Your task to perform on an android device: Clear all items from cart on ebay. Search for acer predator on ebay, select the first entry, and add it to the cart. Image 0: 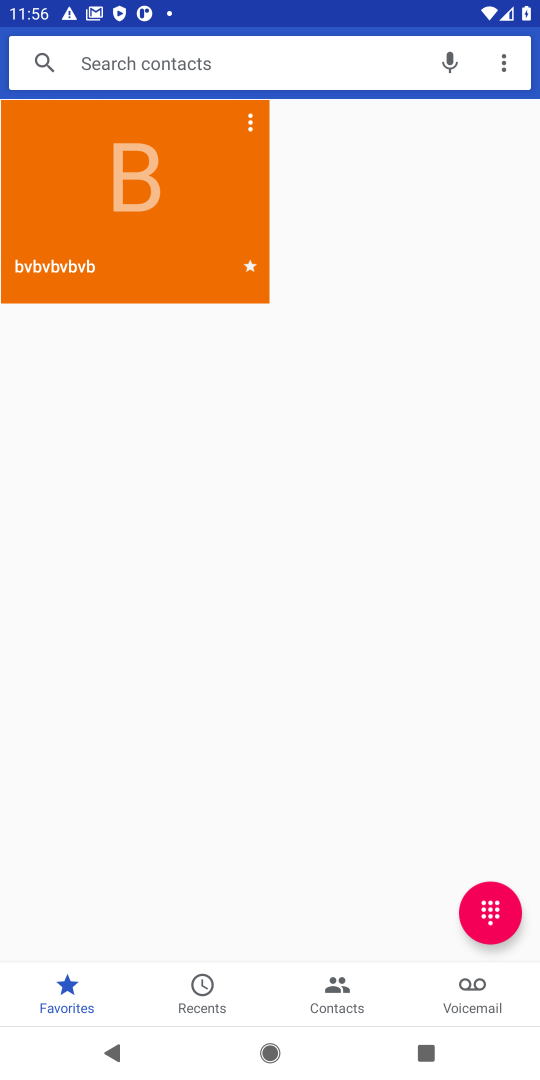
Step 0: press home button
Your task to perform on an android device: Clear all items from cart on ebay. Search for acer predator on ebay, select the first entry, and add it to the cart. Image 1: 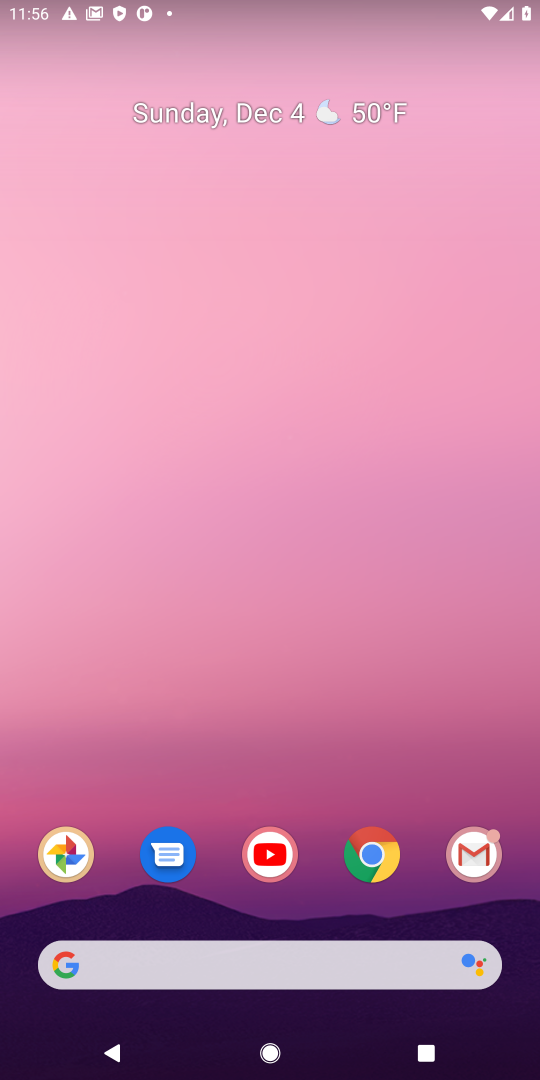
Step 1: click (220, 977)
Your task to perform on an android device: Clear all items from cart on ebay. Search for acer predator on ebay, select the first entry, and add it to the cart. Image 2: 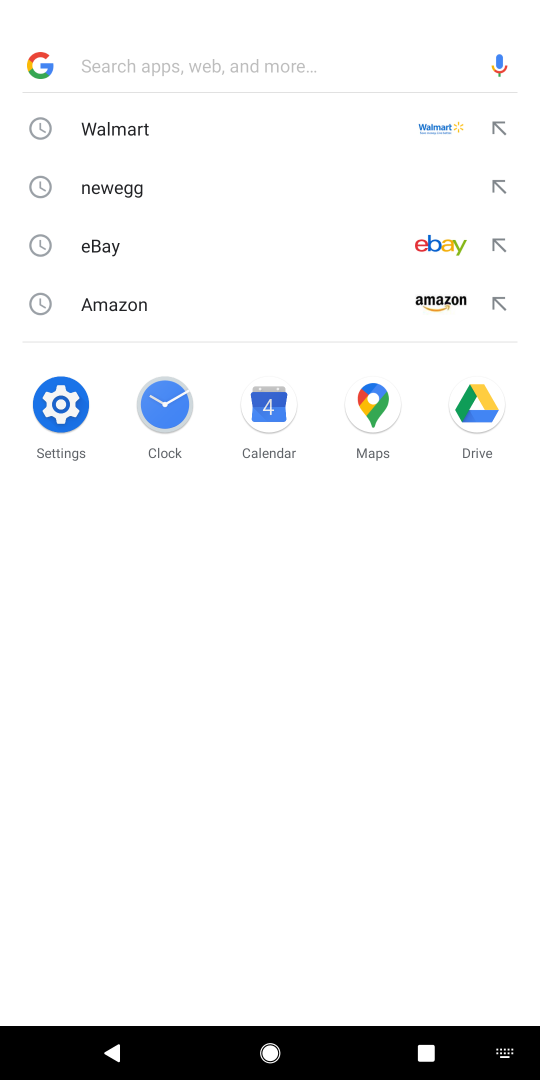
Step 2: type "ebay"
Your task to perform on an android device: Clear all items from cart on ebay. Search for acer predator on ebay, select the first entry, and add it to the cart. Image 3: 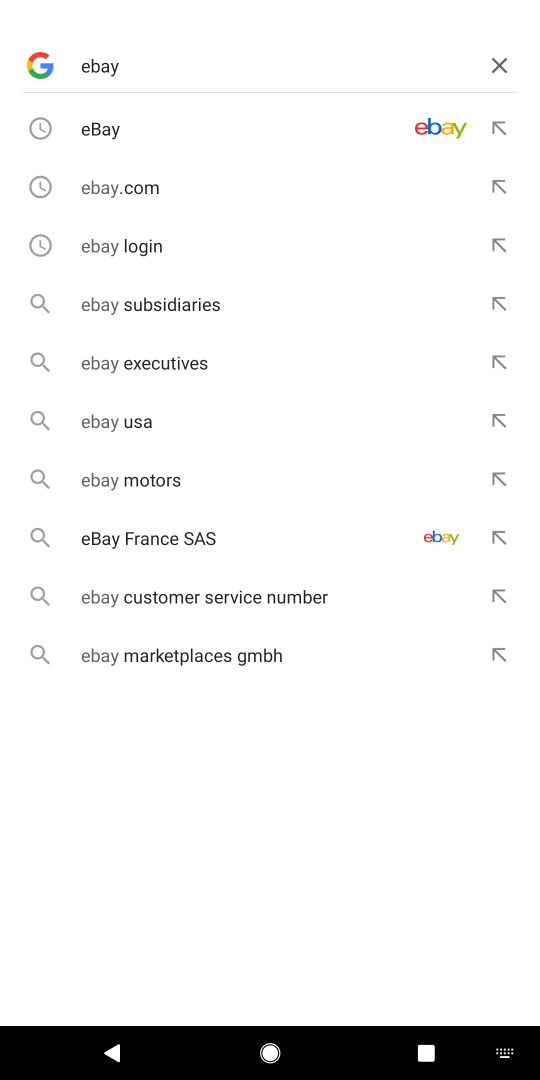
Step 3: click (204, 127)
Your task to perform on an android device: Clear all items from cart on ebay. Search for acer predator on ebay, select the first entry, and add it to the cart. Image 4: 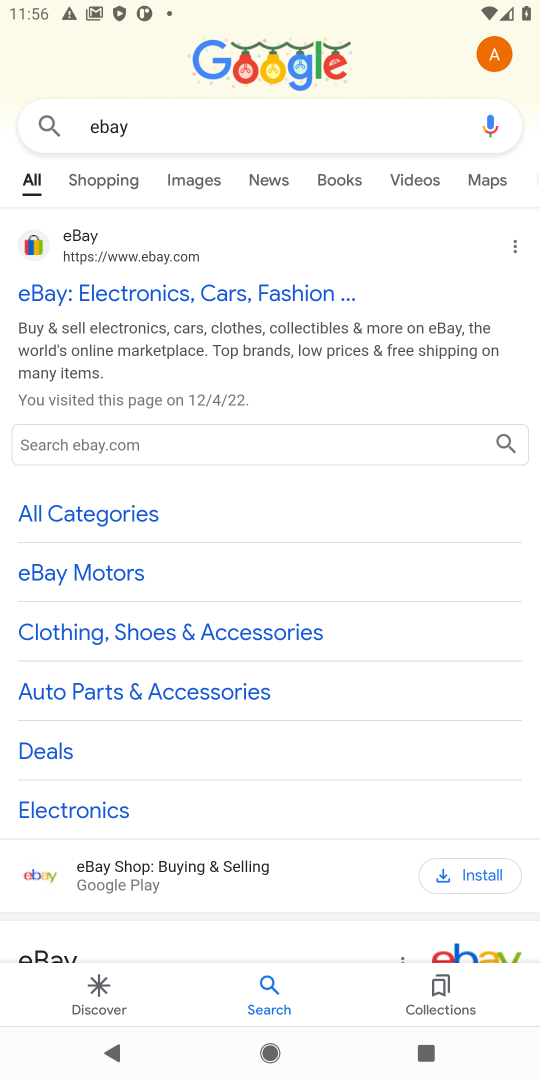
Step 4: click (78, 290)
Your task to perform on an android device: Clear all items from cart on ebay. Search for acer predator on ebay, select the first entry, and add it to the cart. Image 5: 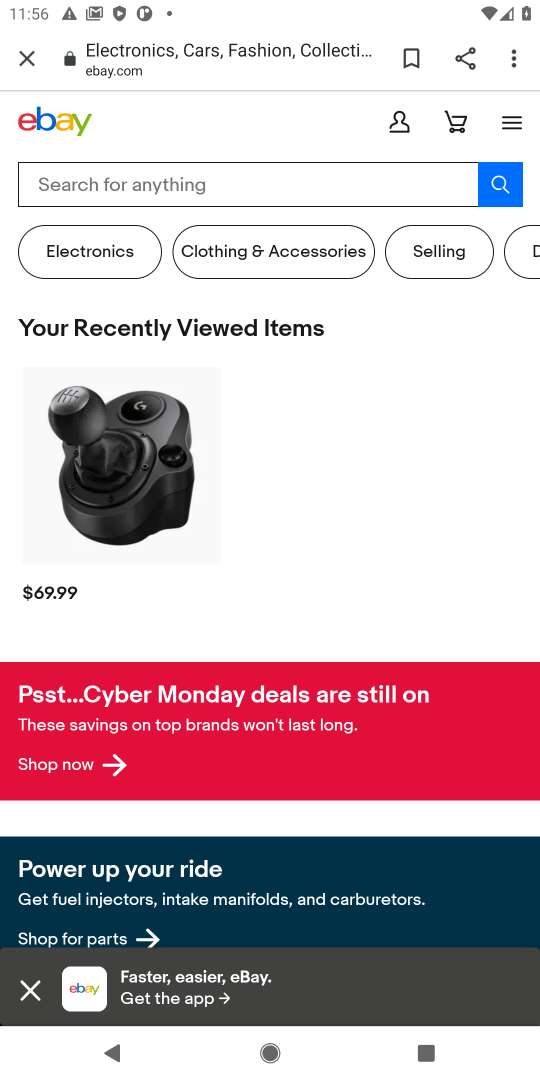
Step 5: click (166, 183)
Your task to perform on an android device: Clear all items from cart on ebay. Search for acer predator on ebay, select the first entry, and add it to the cart. Image 6: 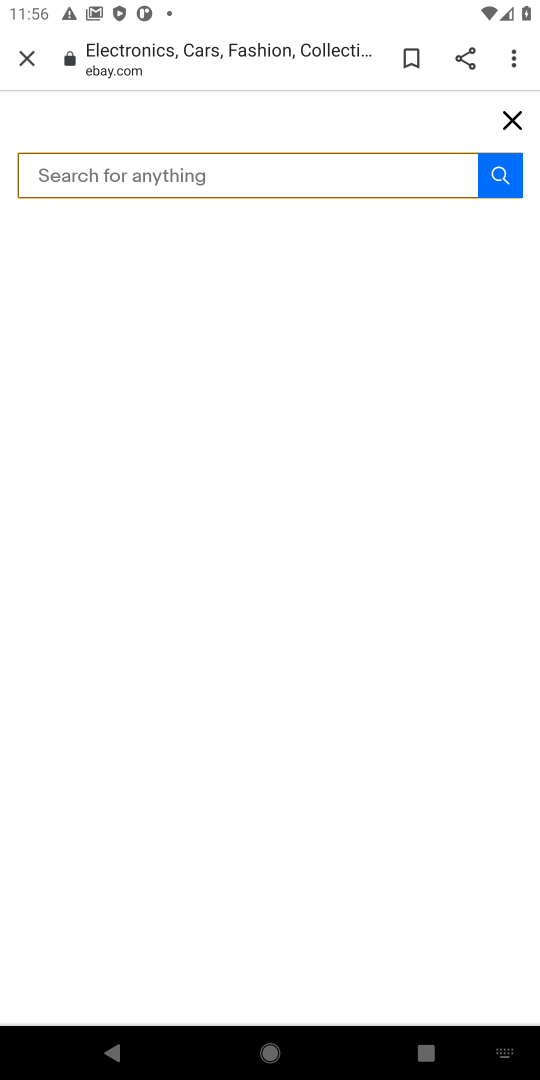
Step 6: type "acer predator"
Your task to perform on an android device: Clear all items from cart on ebay. Search for acer predator on ebay, select the first entry, and add it to the cart. Image 7: 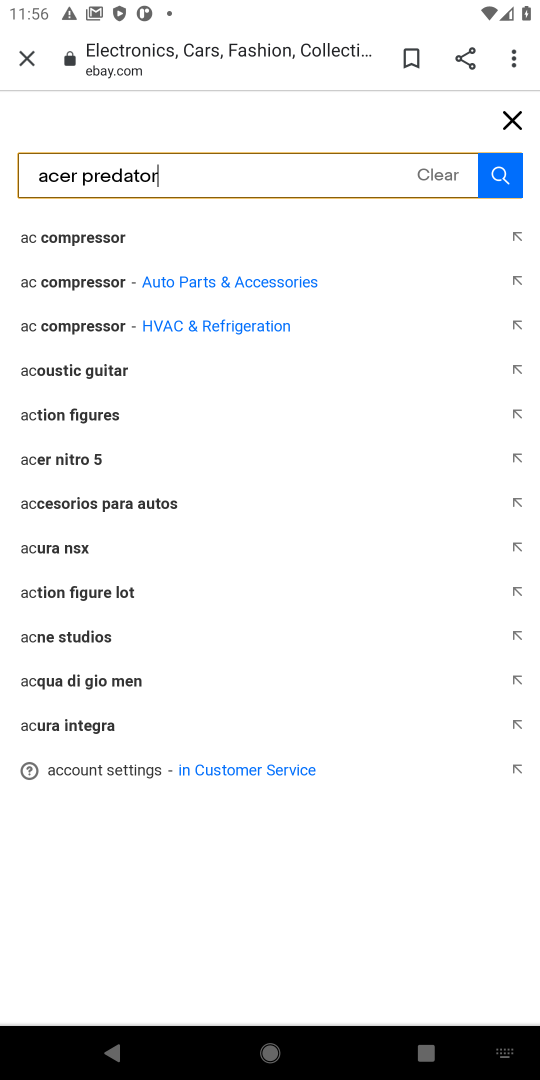
Step 7: click (495, 180)
Your task to perform on an android device: Clear all items from cart on ebay. Search for acer predator on ebay, select the first entry, and add it to the cart. Image 8: 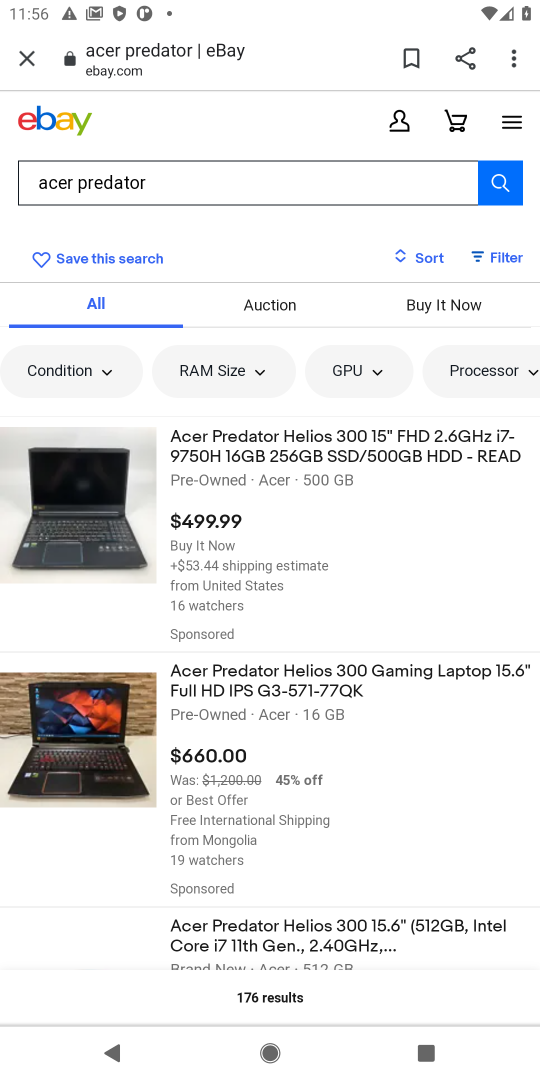
Step 8: click (385, 439)
Your task to perform on an android device: Clear all items from cart on ebay. Search for acer predator on ebay, select the first entry, and add it to the cart. Image 9: 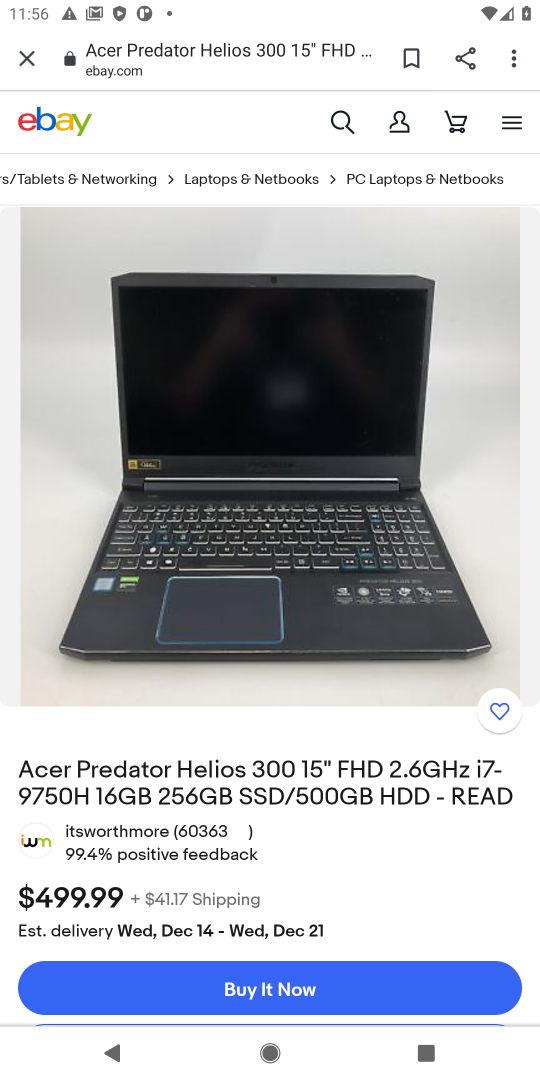
Step 9: drag from (239, 880) to (226, 312)
Your task to perform on an android device: Clear all items from cart on ebay. Search for acer predator on ebay, select the first entry, and add it to the cart. Image 10: 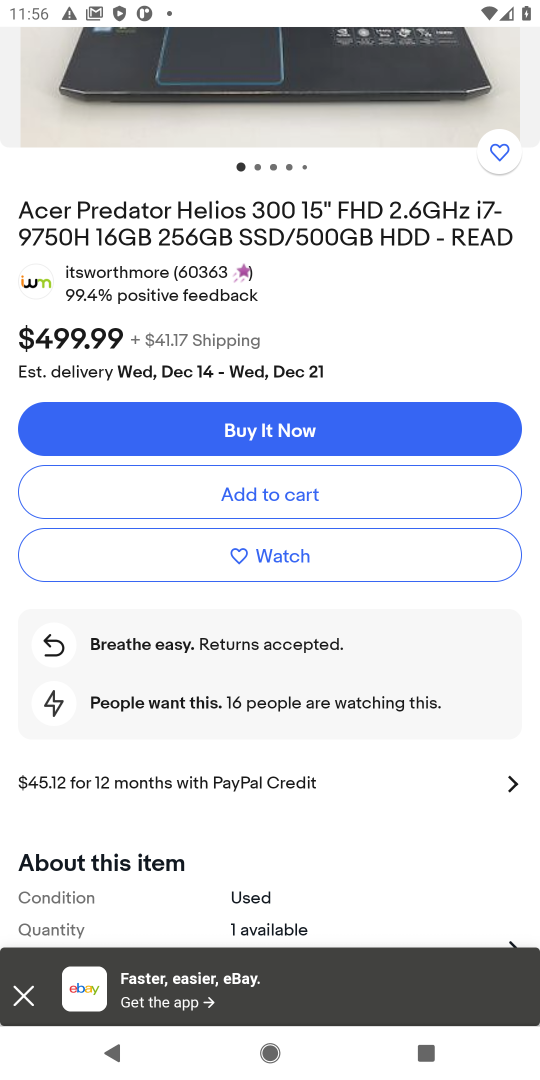
Step 10: click (307, 511)
Your task to perform on an android device: Clear all items from cart on ebay. Search for acer predator on ebay, select the first entry, and add it to the cart. Image 11: 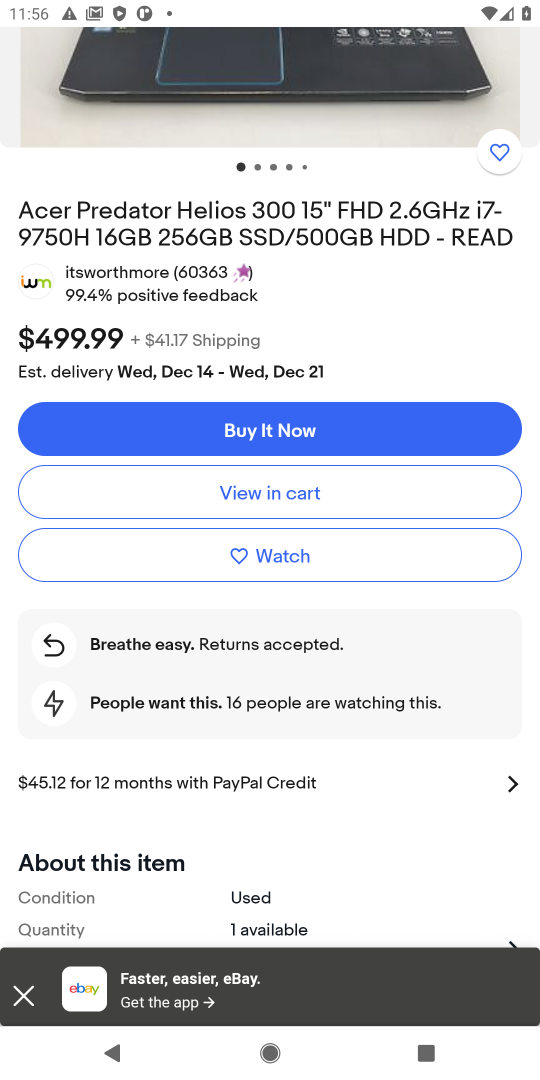
Step 11: task complete